Your task to perform on an android device: turn vacation reply on in the gmail app Image 0: 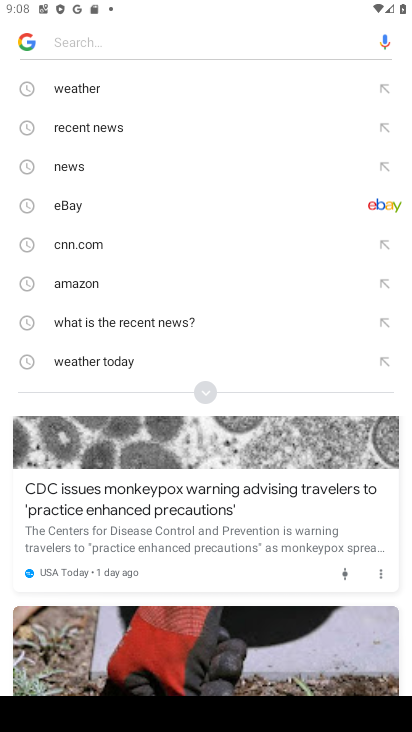
Step 0: press home button
Your task to perform on an android device: turn vacation reply on in the gmail app Image 1: 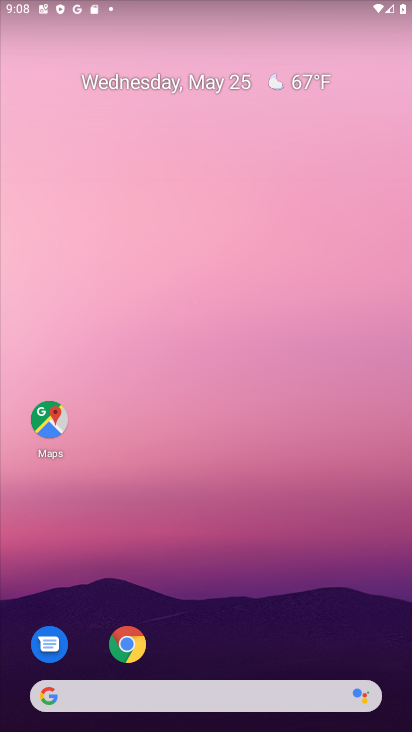
Step 1: drag from (220, 651) to (235, 20)
Your task to perform on an android device: turn vacation reply on in the gmail app Image 2: 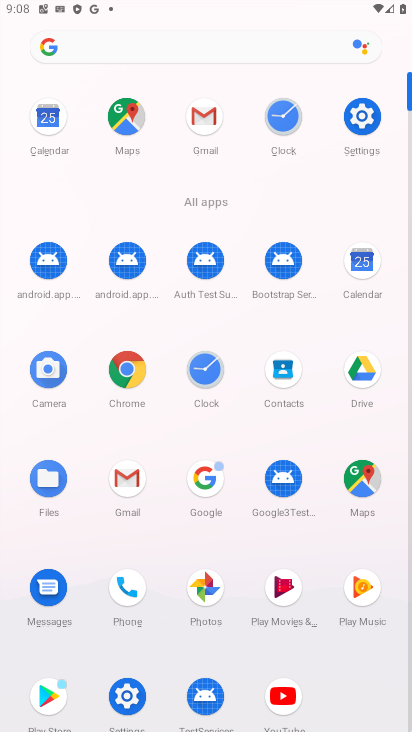
Step 2: click (194, 113)
Your task to perform on an android device: turn vacation reply on in the gmail app Image 3: 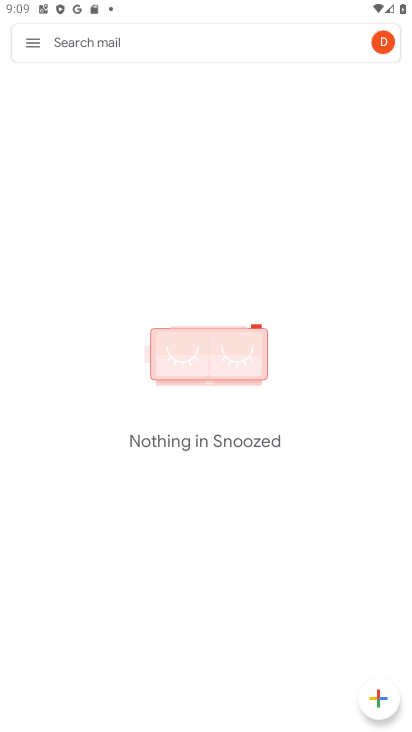
Step 3: click (27, 38)
Your task to perform on an android device: turn vacation reply on in the gmail app Image 4: 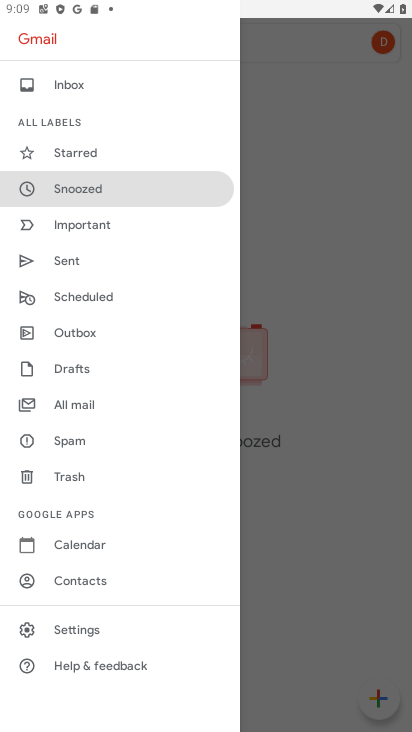
Step 4: click (103, 621)
Your task to perform on an android device: turn vacation reply on in the gmail app Image 5: 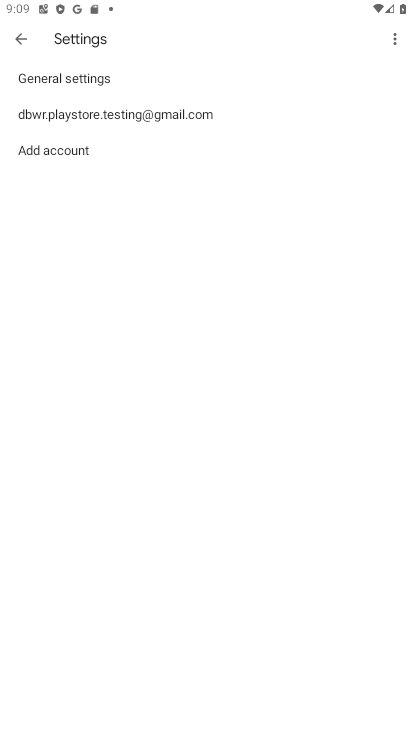
Step 5: click (217, 111)
Your task to perform on an android device: turn vacation reply on in the gmail app Image 6: 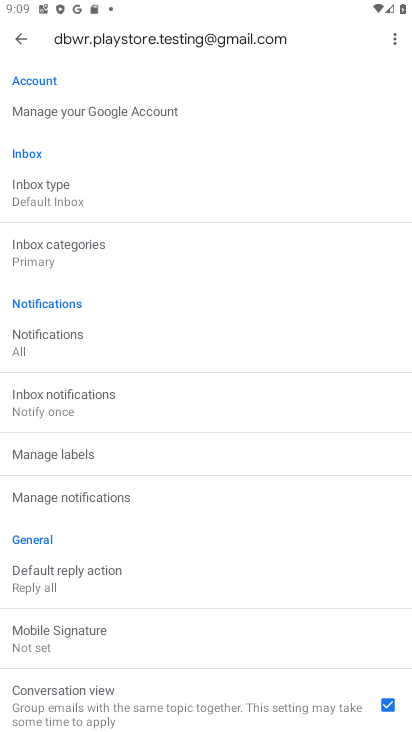
Step 6: drag from (131, 572) to (136, 49)
Your task to perform on an android device: turn vacation reply on in the gmail app Image 7: 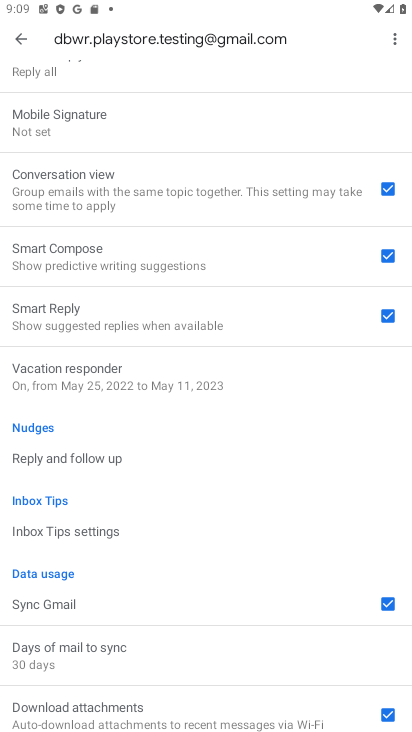
Step 7: click (142, 371)
Your task to perform on an android device: turn vacation reply on in the gmail app Image 8: 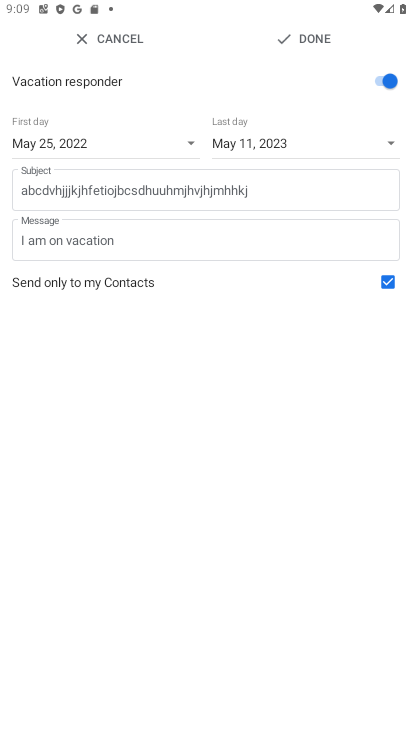
Step 8: task complete